Your task to perform on an android device: Play the last video I watched on Youtube Image 0: 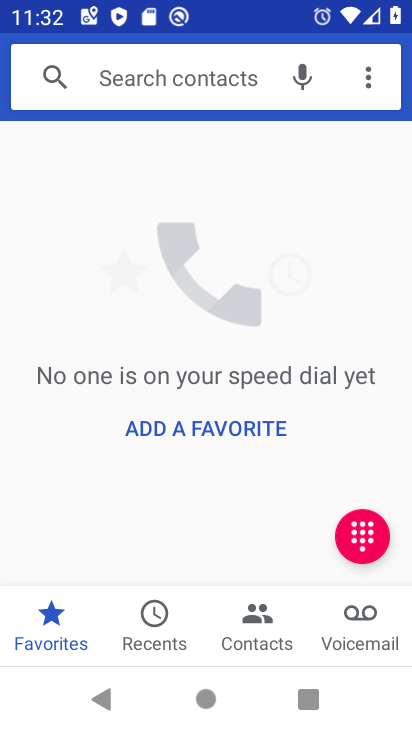
Step 0: press home button
Your task to perform on an android device: Play the last video I watched on Youtube Image 1: 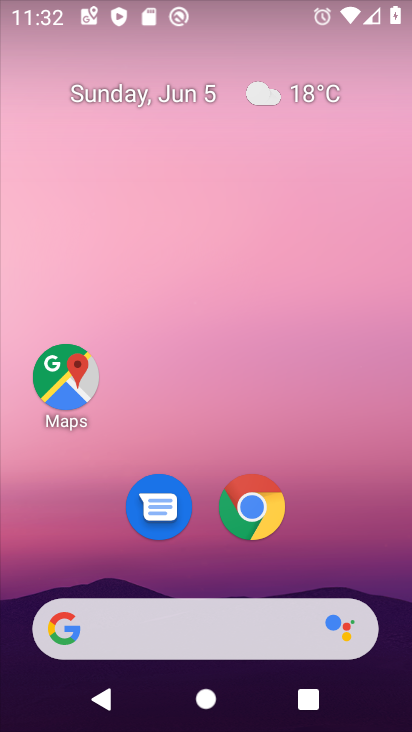
Step 1: drag from (233, 693) to (213, 64)
Your task to perform on an android device: Play the last video I watched on Youtube Image 2: 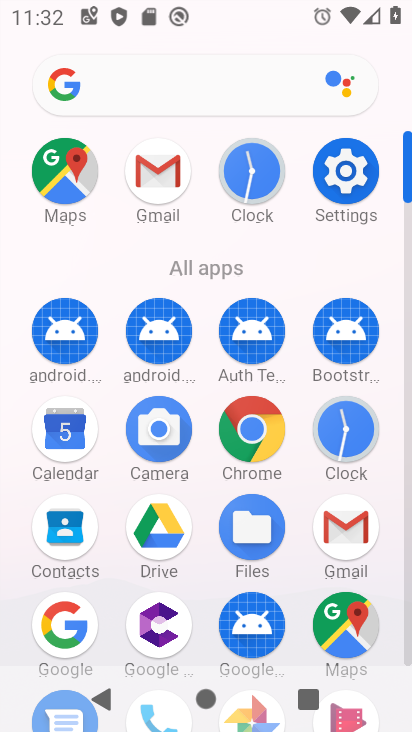
Step 2: drag from (296, 653) to (283, 290)
Your task to perform on an android device: Play the last video I watched on Youtube Image 3: 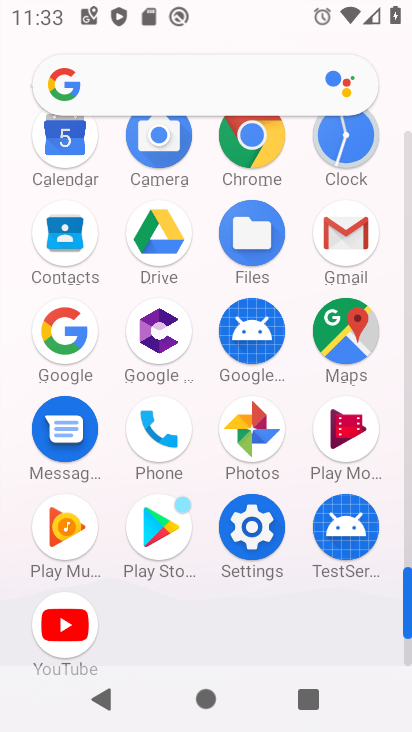
Step 3: click (57, 627)
Your task to perform on an android device: Play the last video I watched on Youtube Image 4: 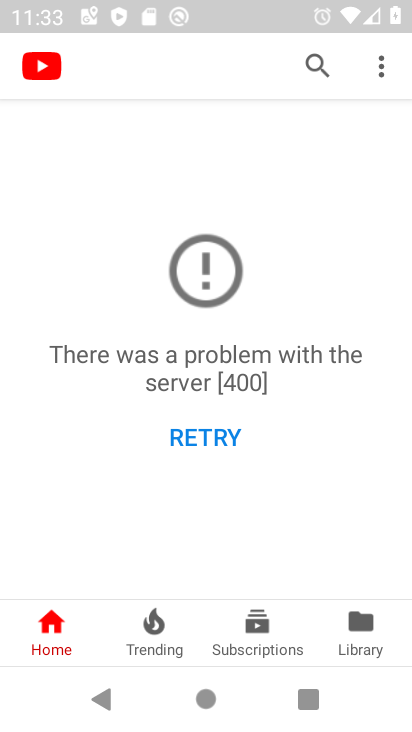
Step 4: click (361, 630)
Your task to perform on an android device: Play the last video I watched on Youtube Image 5: 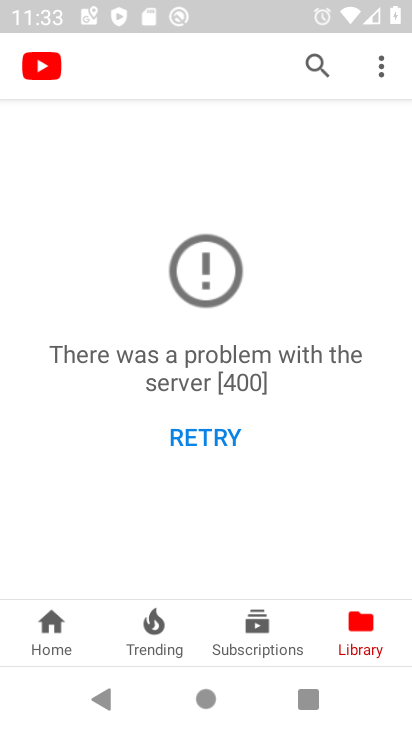
Step 5: task complete